Your task to perform on an android device: check data usage Image 0: 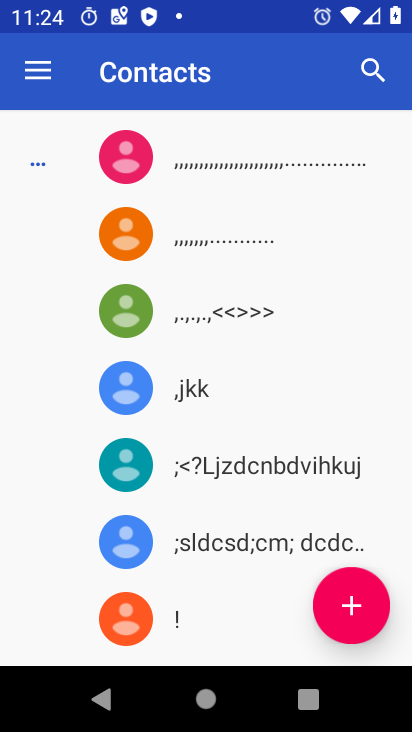
Step 0: press home button
Your task to perform on an android device: check data usage Image 1: 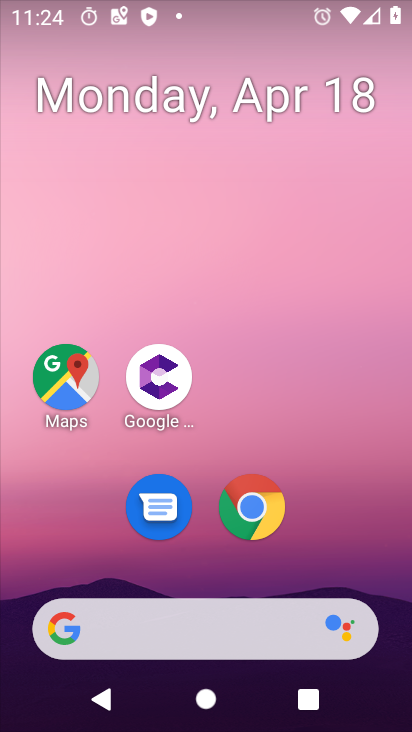
Step 1: drag from (268, 634) to (78, 124)
Your task to perform on an android device: check data usage Image 2: 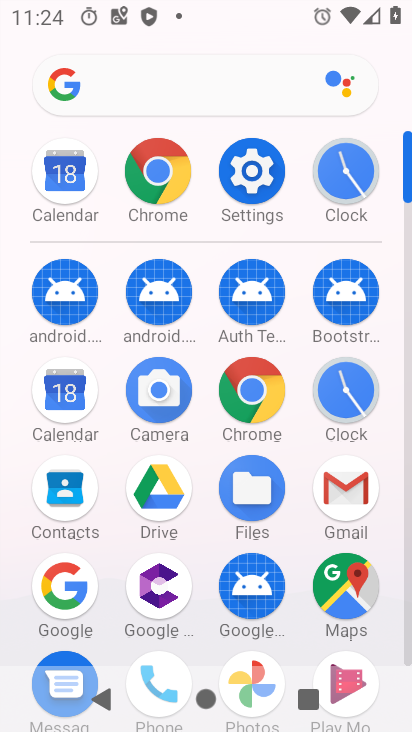
Step 2: click (238, 176)
Your task to perform on an android device: check data usage Image 3: 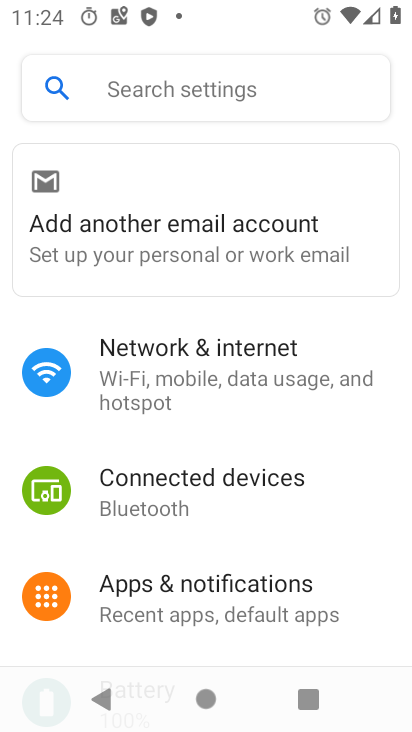
Step 3: click (151, 93)
Your task to perform on an android device: check data usage Image 4: 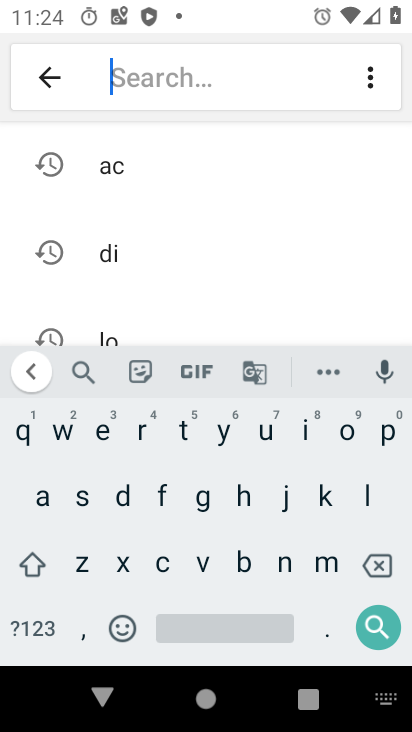
Step 4: click (123, 494)
Your task to perform on an android device: check data usage Image 5: 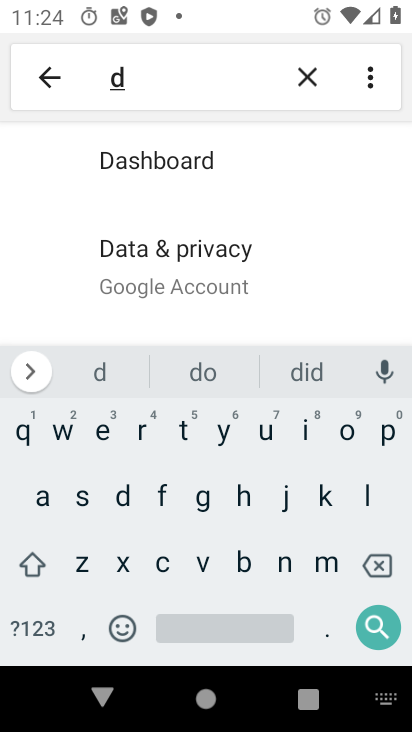
Step 5: click (44, 500)
Your task to perform on an android device: check data usage Image 6: 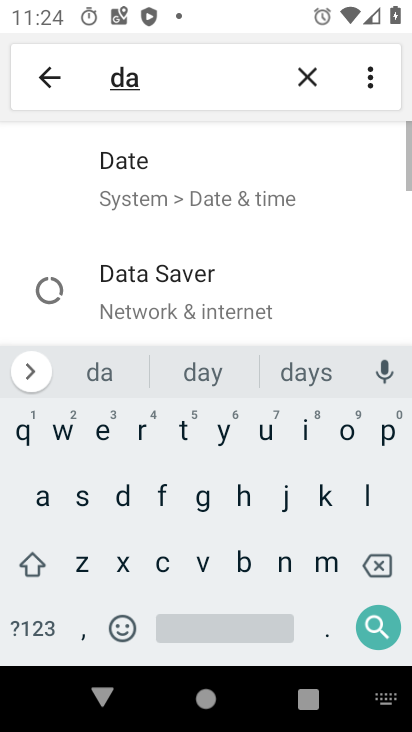
Step 6: click (187, 431)
Your task to perform on an android device: check data usage Image 7: 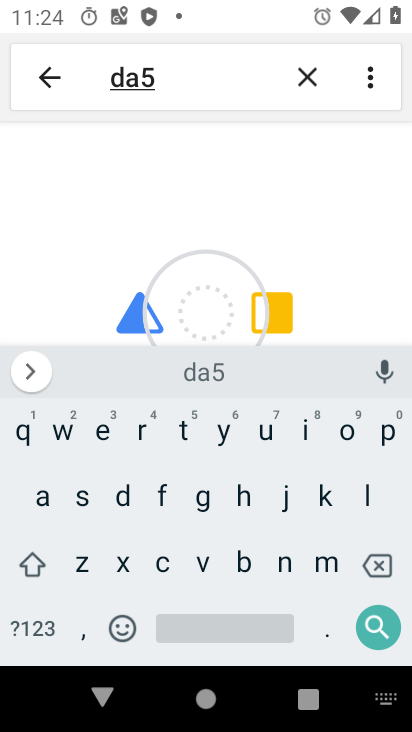
Step 7: click (47, 499)
Your task to perform on an android device: check data usage Image 8: 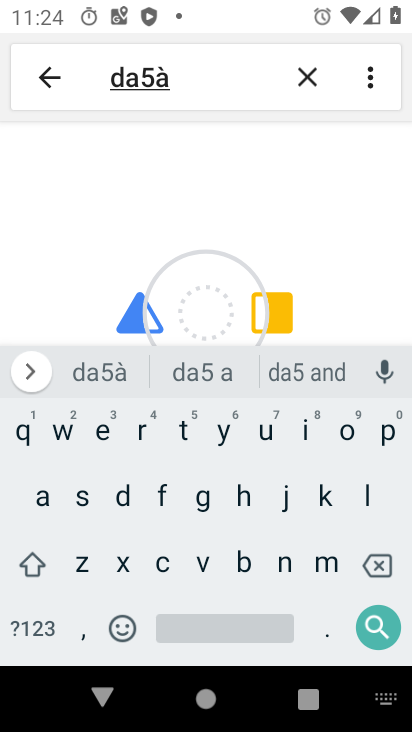
Step 8: click (370, 571)
Your task to perform on an android device: check data usage Image 9: 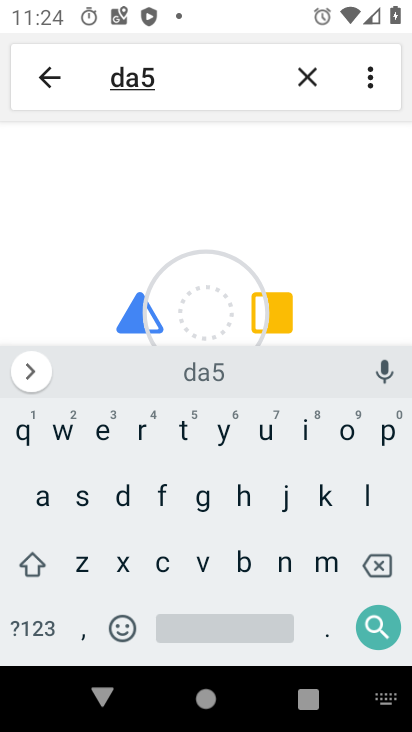
Step 9: click (375, 558)
Your task to perform on an android device: check data usage Image 10: 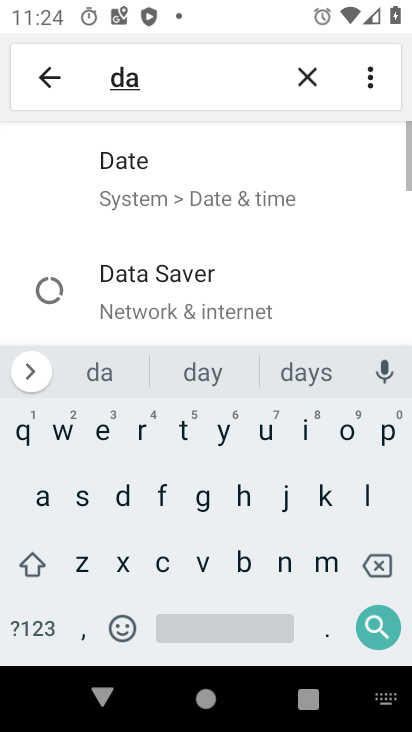
Step 10: click (187, 440)
Your task to perform on an android device: check data usage Image 11: 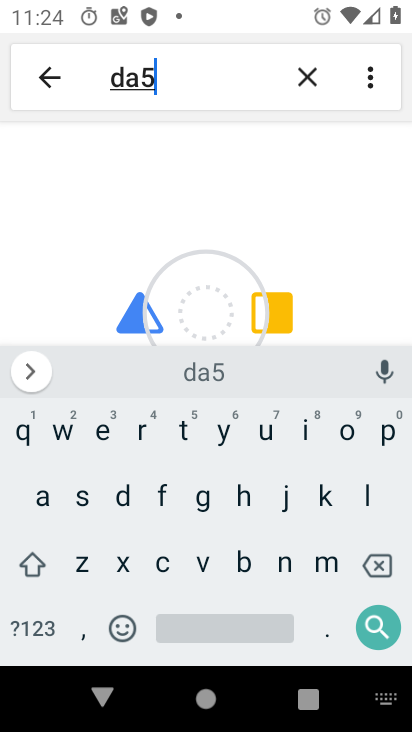
Step 11: click (389, 568)
Your task to perform on an android device: check data usage Image 12: 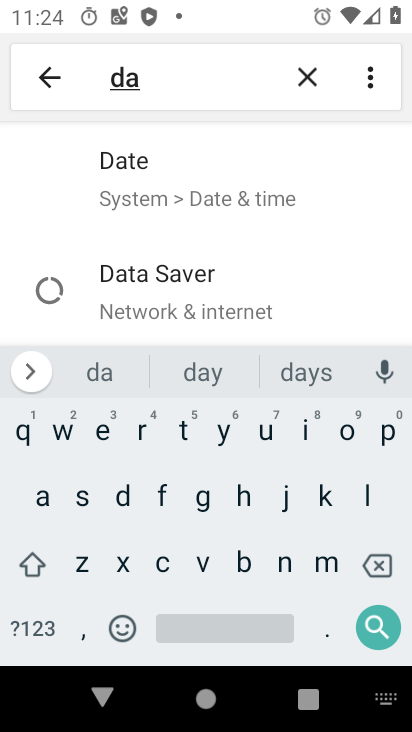
Step 12: click (183, 442)
Your task to perform on an android device: check data usage Image 13: 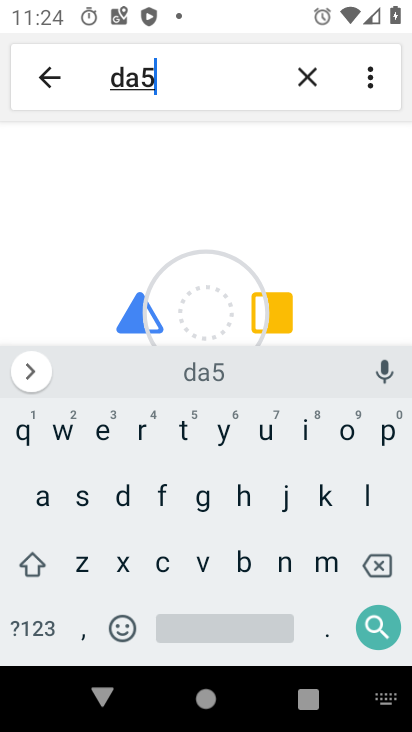
Step 13: click (386, 566)
Your task to perform on an android device: check data usage Image 14: 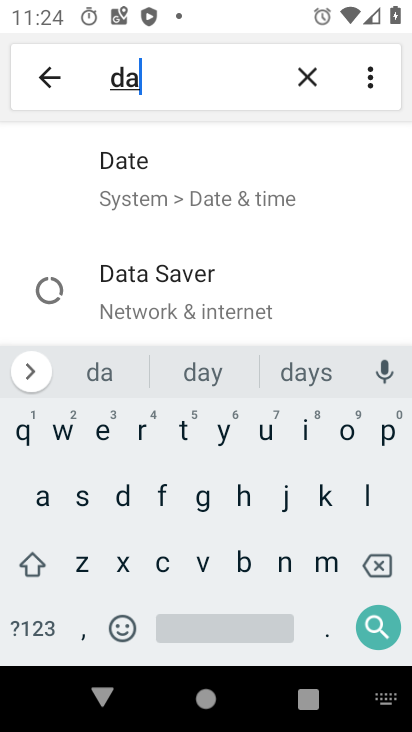
Step 14: click (189, 440)
Your task to perform on an android device: check data usage Image 15: 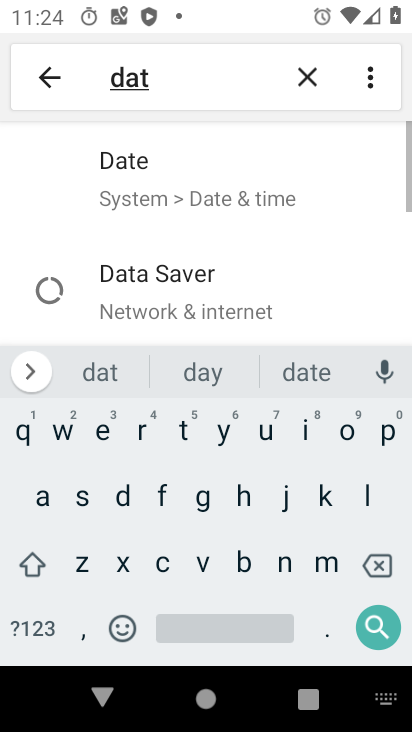
Step 15: click (38, 488)
Your task to perform on an android device: check data usage Image 16: 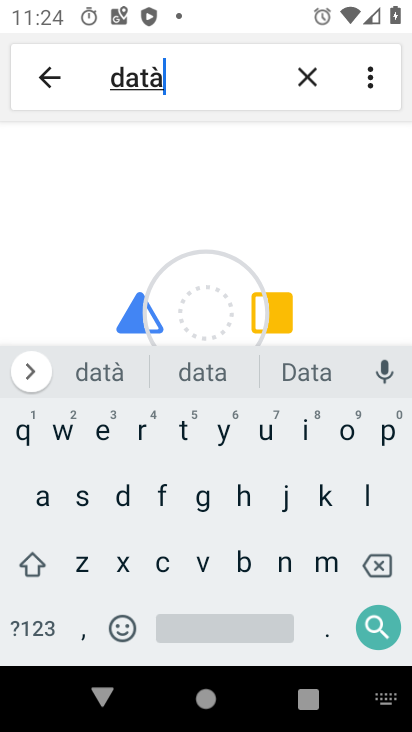
Step 16: click (379, 568)
Your task to perform on an android device: check data usage Image 17: 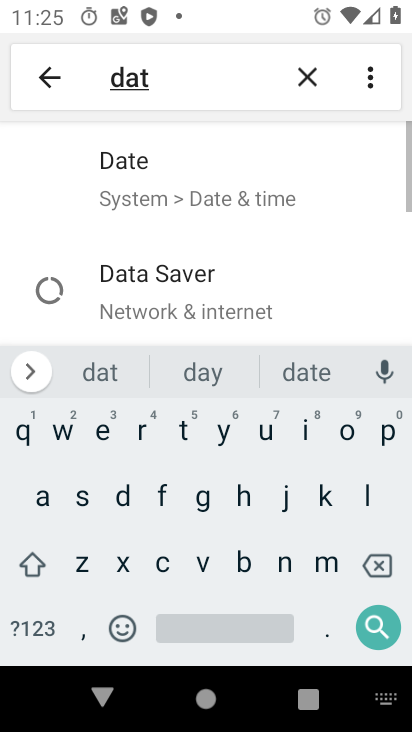
Step 17: click (50, 500)
Your task to perform on an android device: check data usage Image 18: 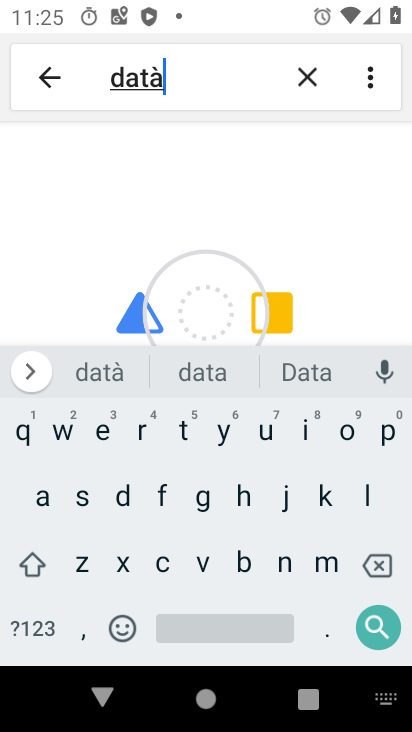
Step 18: click (371, 567)
Your task to perform on an android device: check data usage Image 19: 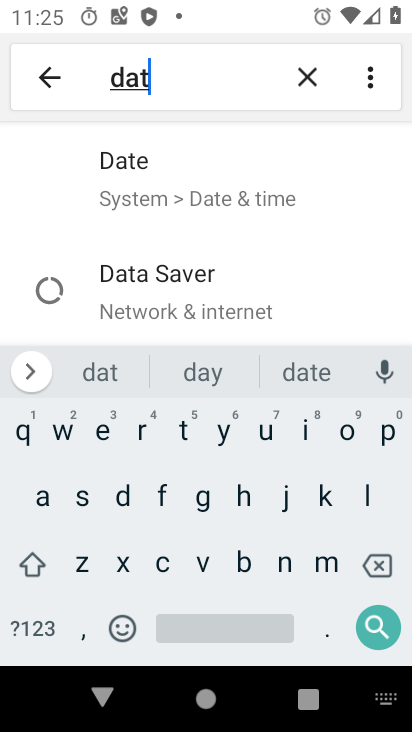
Step 19: click (51, 508)
Your task to perform on an android device: check data usage Image 20: 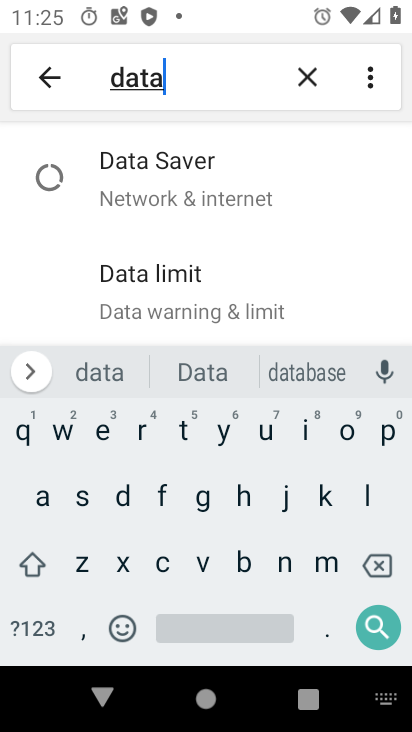
Step 20: click (197, 640)
Your task to perform on an android device: check data usage Image 21: 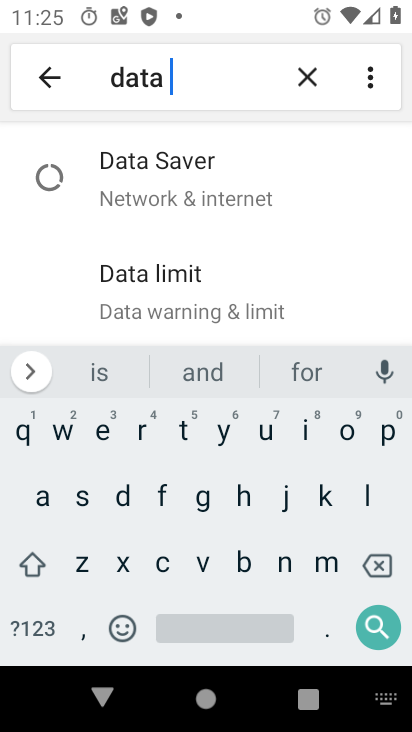
Step 21: click (263, 447)
Your task to perform on an android device: check data usage Image 22: 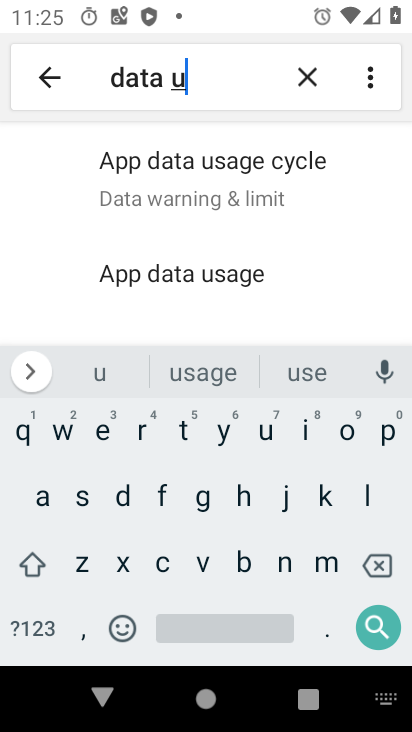
Step 22: click (221, 268)
Your task to perform on an android device: check data usage Image 23: 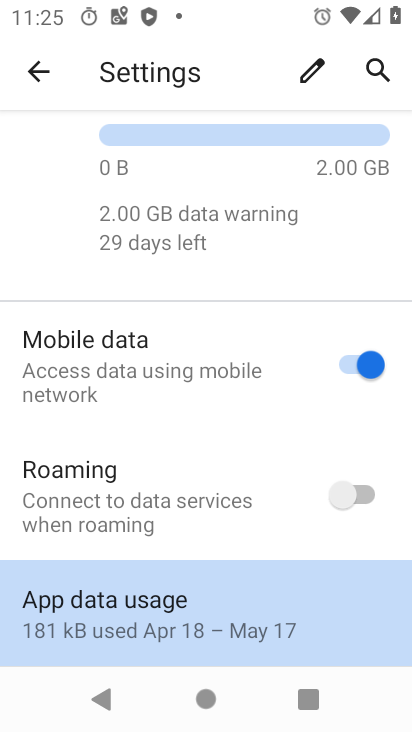
Step 23: click (154, 616)
Your task to perform on an android device: check data usage Image 24: 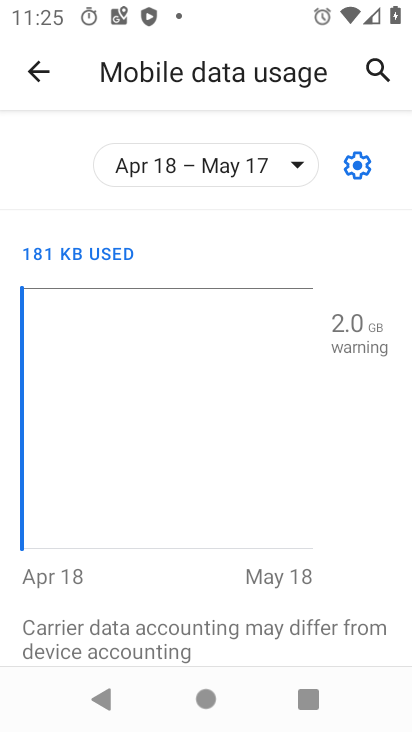
Step 24: task complete